Your task to perform on an android device: Go to eBay Image 0: 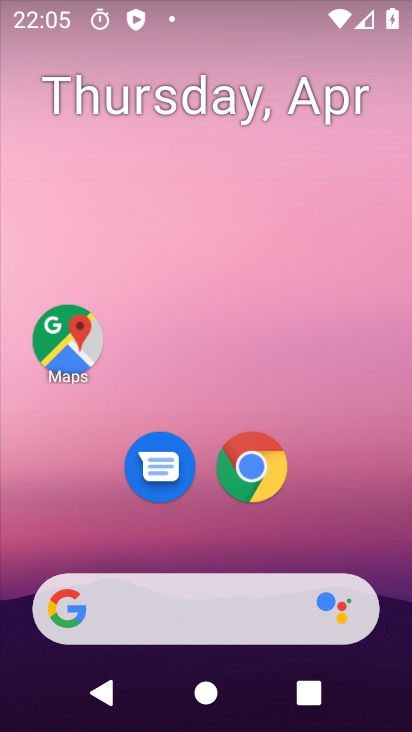
Step 0: drag from (231, 533) to (307, 0)
Your task to perform on an android device: Go to eBay Image 1: 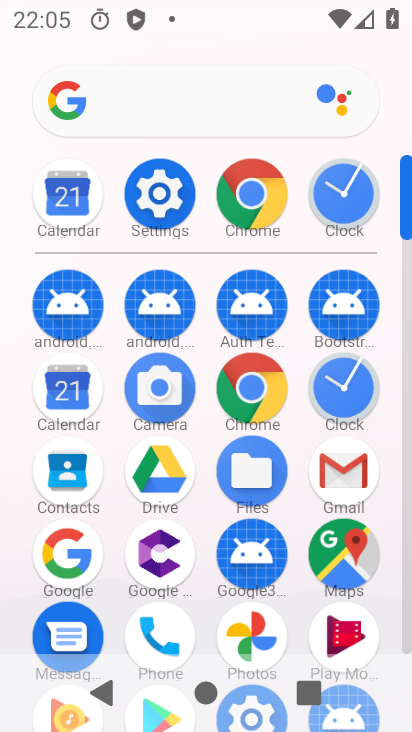
Step 1: click (249, 176)
Your task to perform on an android device: Go to eBay Image 2: 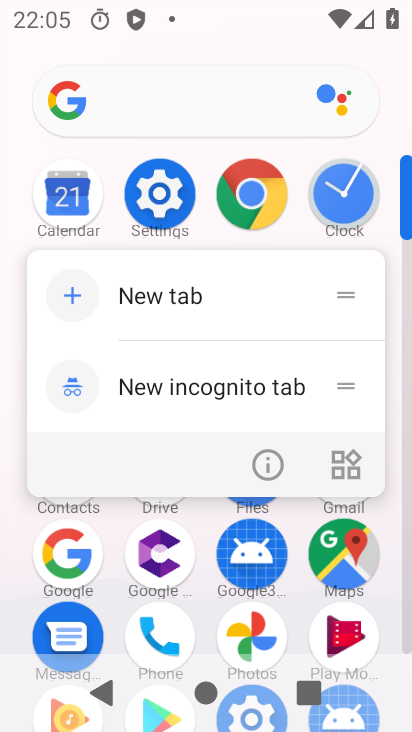
Step 2: click (248, 198)
Your task to perform on an android device: Go to eBay Image 3: 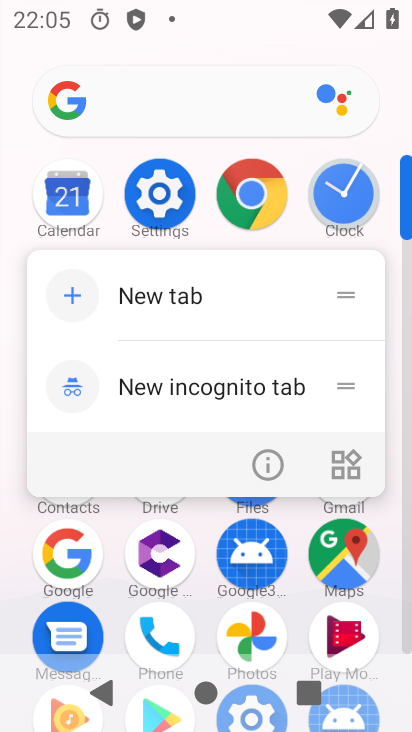
Step 3: click (250, 211)
Your task to perform on an android device: Go to eBay Image 4: 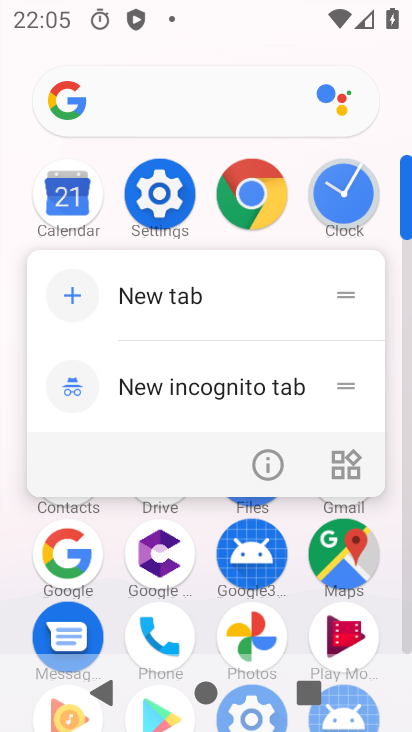
Step 4: click (250, 211)
Your task to perform on an android device: Go to eBay Image 5: 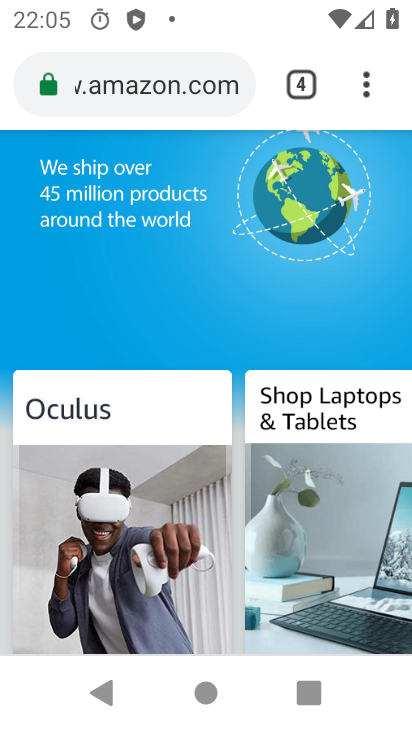
Step 5: click (300, 76)
Your task to perform on an android device: Go to eBay Image 6: 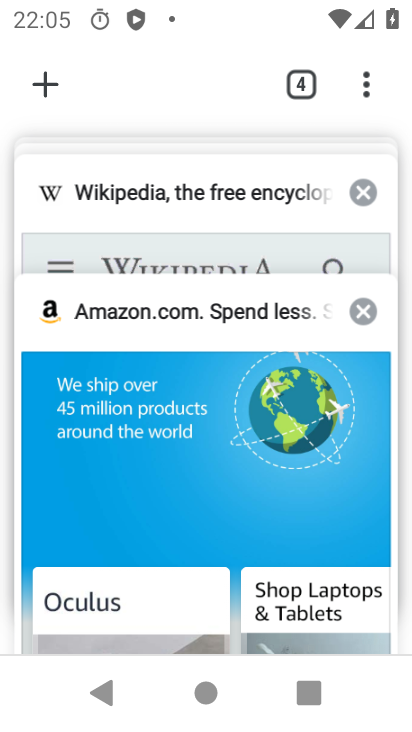
Step 6: click (27, 73)
Your task to perform on an android device: Go to eBay Image 7: 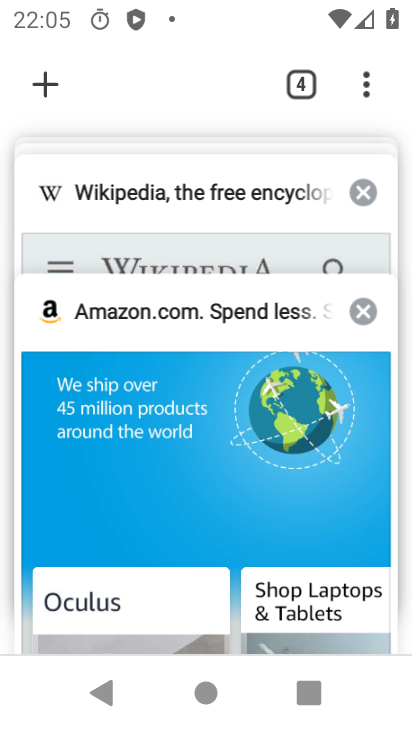
Step 7: click (27, 73)
Your task to perform on an android device: Go to eBay Image 8: 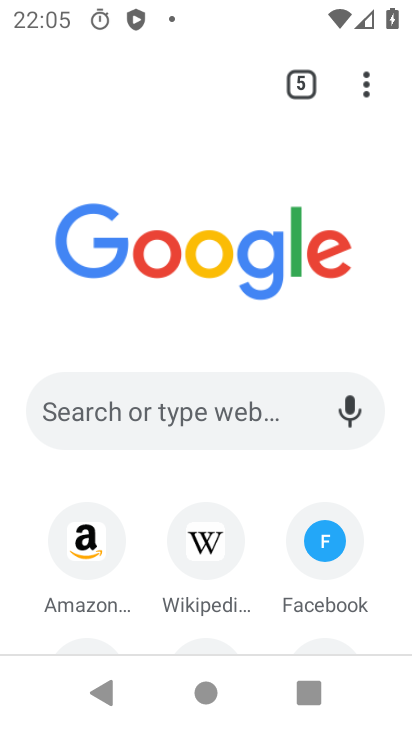
Step 8: drag from (158, 484) to (165, 134)
Your task to perform on an android device: Go to eBay Image 9: 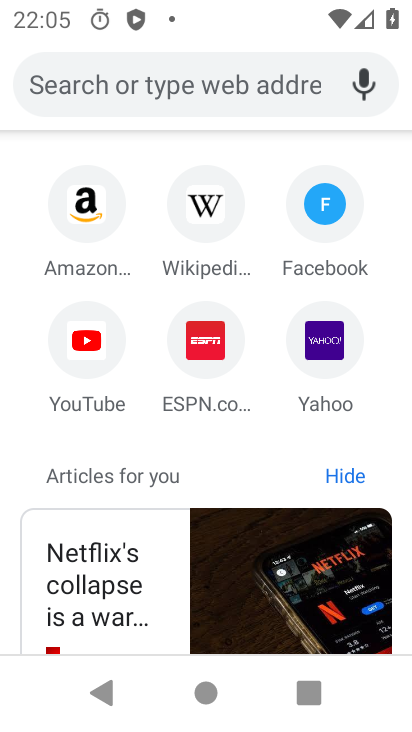
Step 9: click (135, 76)
Your task to perform on an android device: Go to eBay Image 10: 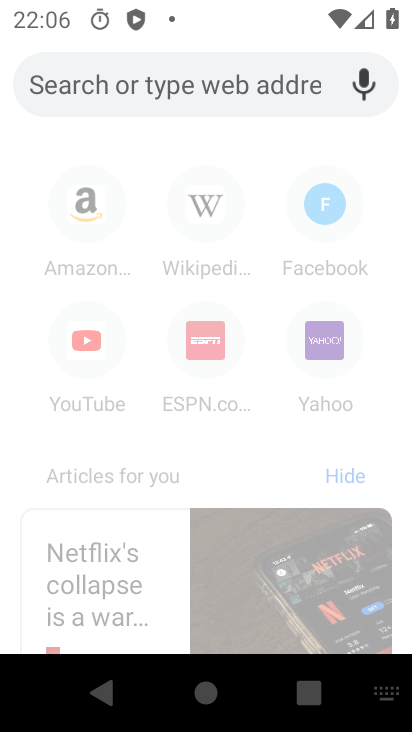
Step 10: type "ebay"
Your task to perform on an android device: Go to eBay Image 11: 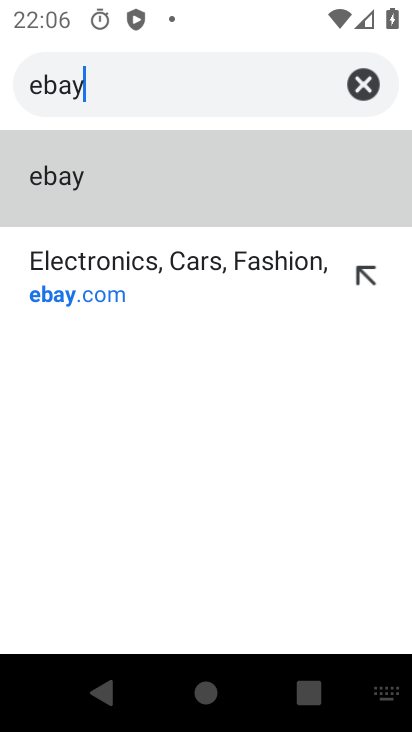
Step 11: click (195, 247)
Your task to perform on an android device: Go to eBay Image 12: 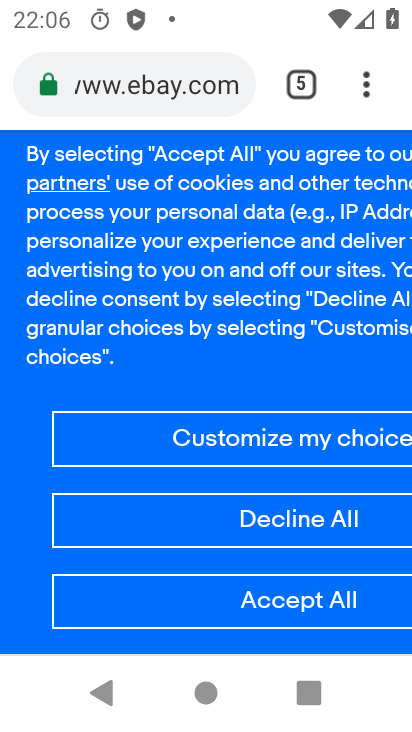
Step 12: task complete